Your task to perform on an android device: delete location history Image 0: 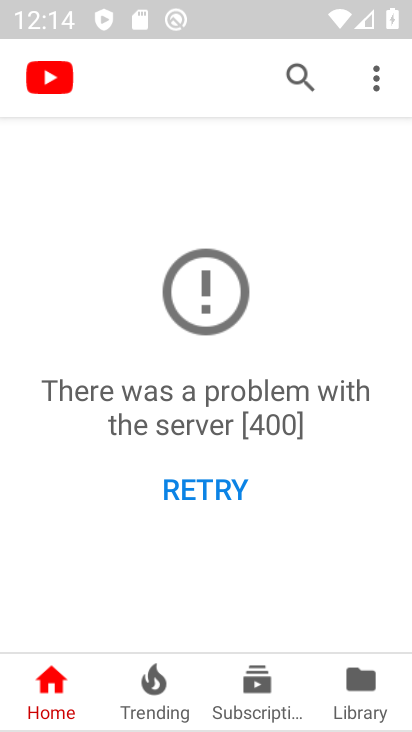
Step 0: drag from (408, 353) to (412, 549)
Your task to perform on an android device: delete location history Image 1: 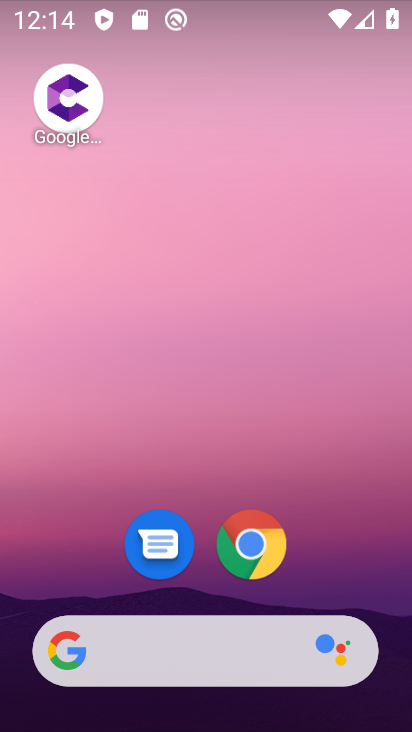
Step 1: drag from (357, 550) to (345, 6)
Your task to perform on an android device: delete location history Image 2: 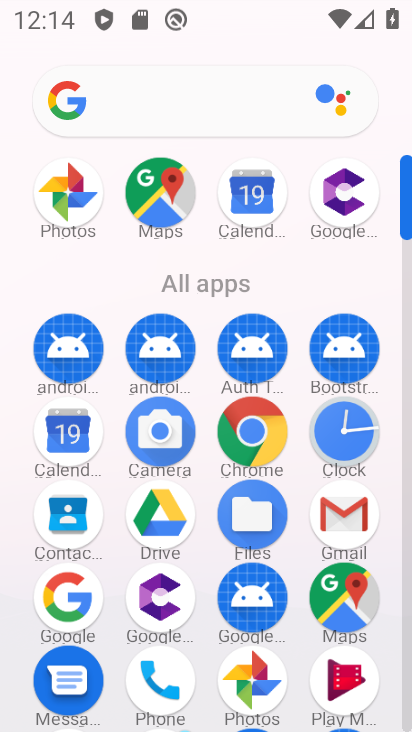
Step 2: drag from (398, 467) to (401, 157)
Your task to perform on an android device: delete location history Image 3: 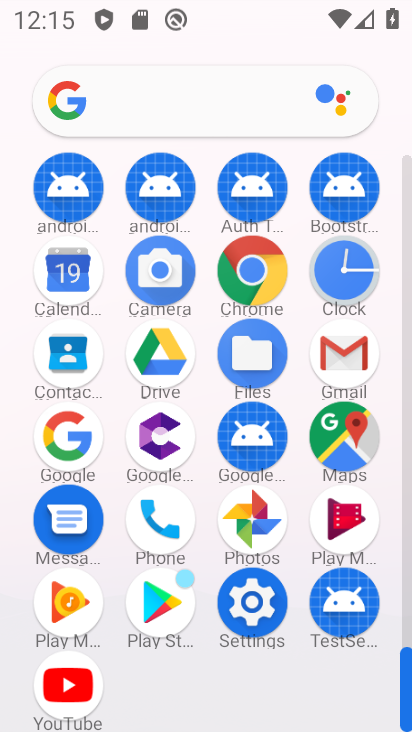
Step 3: click (341, 459)
Your task to perform on an android device: delete location history Image 4: 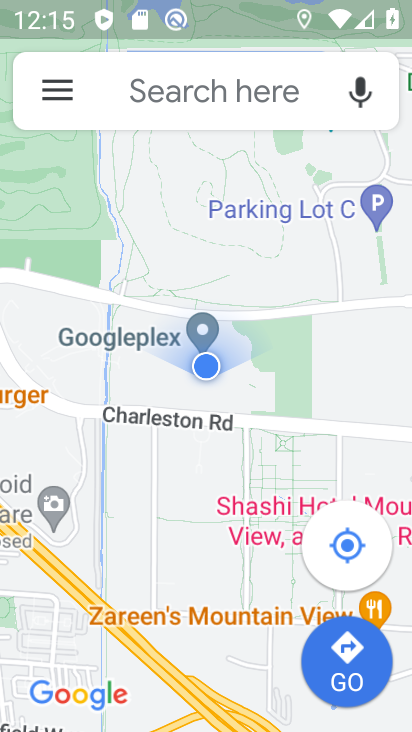
Step 4: click (77, 98)
Your task to perform on an android device: delete location history Image 5: 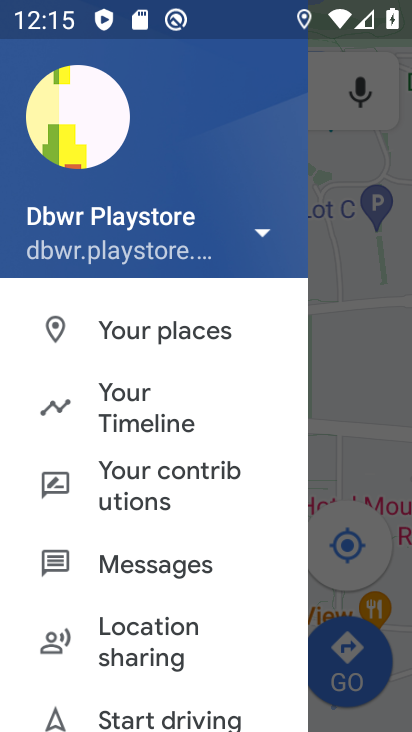
Step 5: click (145, 415)
Your task to perform on an android device: delete location history Image 6: 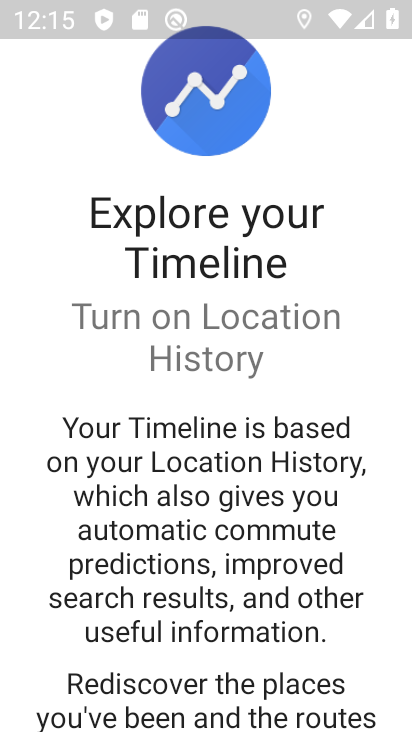
Step 6: drag from (205, 650) to (309, 113)
Your task to perform on an android device: delete location history Image 7: 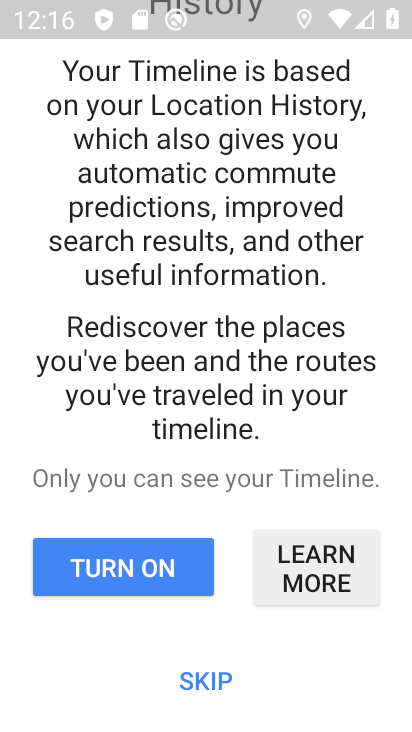
Step 7: click (277, 612)
Your task to perform on an android device: delete location history Image 8: 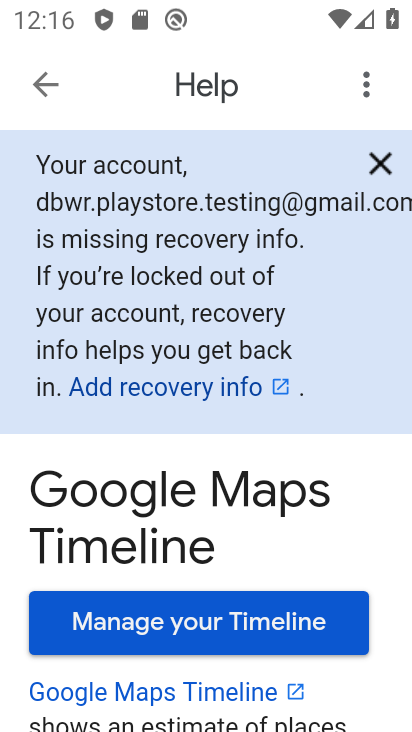
Step 8: click (62, 92)
Your task to perform on an android device: delete location history Image 9: 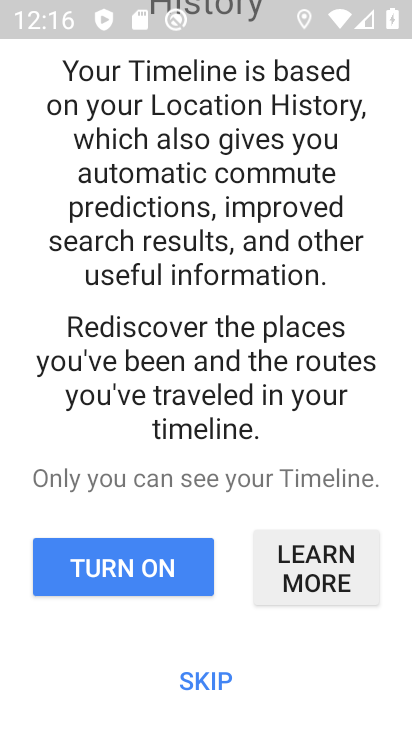
Step 9: click (198, 675)
Your task to perform on an android device: delete location history Image 10: 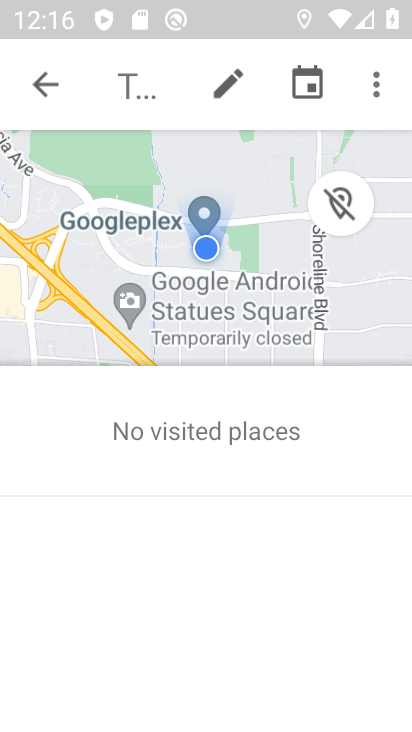
Step 10: click (374, 81)
Your task to perform on an android device: delete location history Image 11: 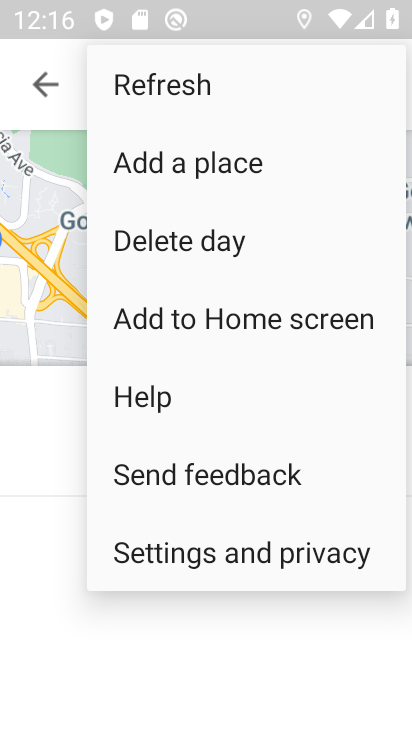
Step 11: click (156, 555)
Your task to perform on an android device: delete location history Image 12: 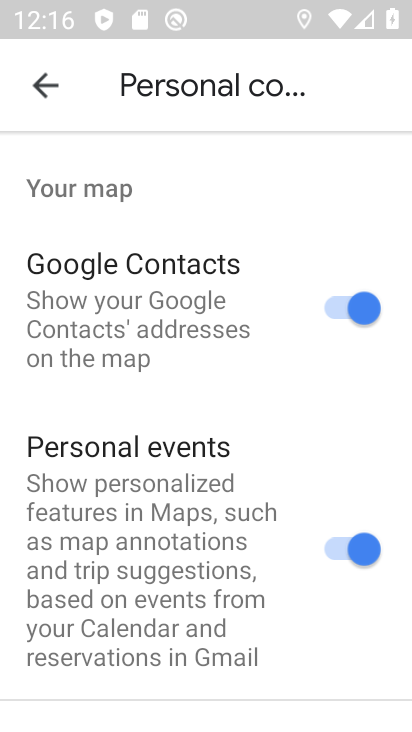
Step 12: drag from (223, 624) to (288, 28)
Your task to perform on an android device: delete location history Image 13: 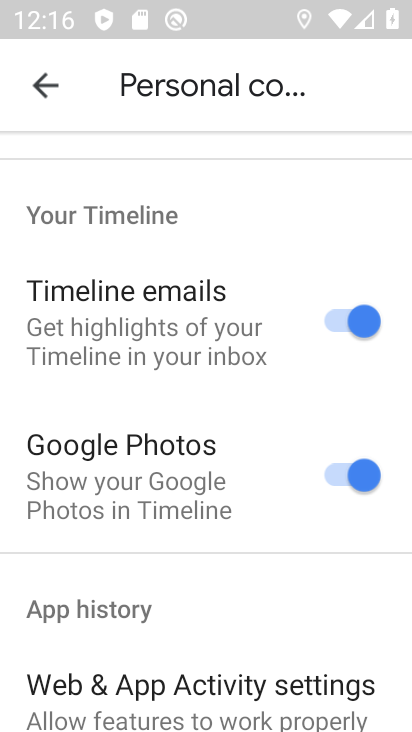
Step 13: drag from (178, 617) to (264, 94)
Your task to perform on an android device: delete location history Image 14: 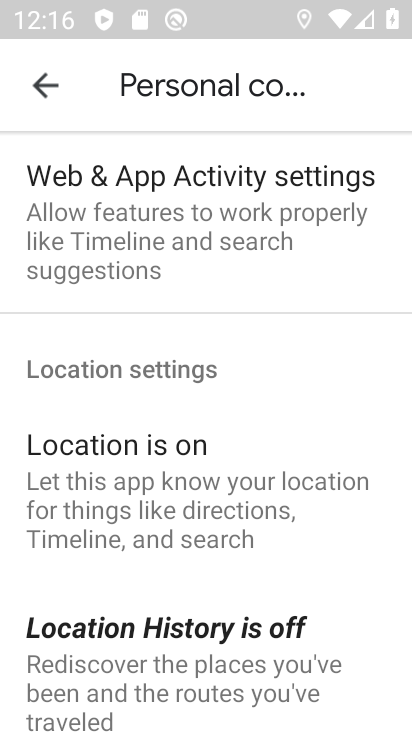
Step 14: drag from (167, 607) to (238, 153)
Your task to perform on an android device: delete location history Image 15: 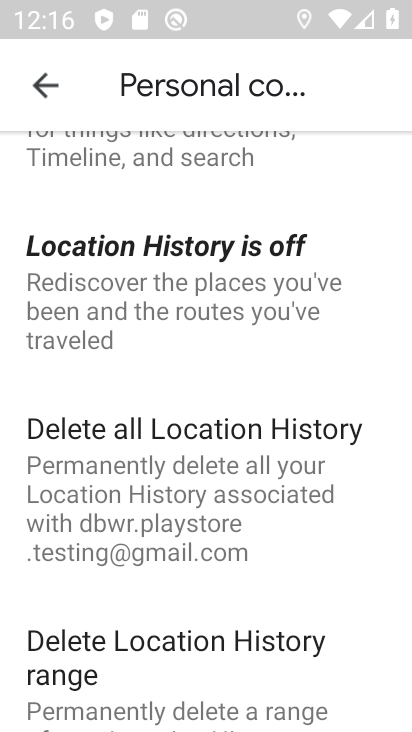
Step 15: drag from (125, 623) to (169, 433)
Your task to perform on an android device: delete location history Image 16: 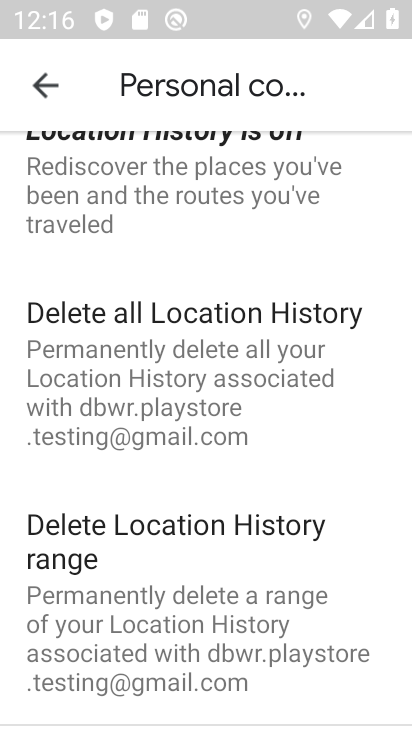
Step 16: click (146, 344)
Your task to perform on an android device: delete location history Image 17: 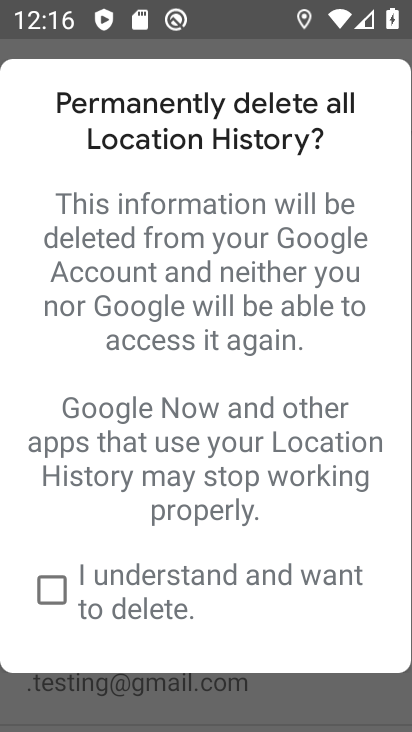
Step 17: click (58, 599)
Your task to perform on an android device: delete location history Image 18: 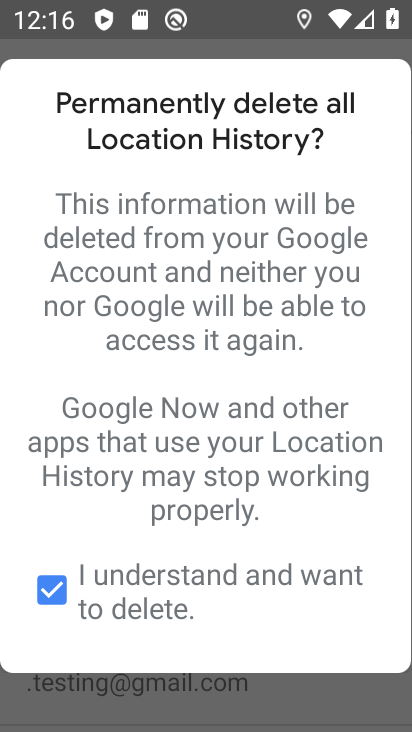
Step 18: task complete